Your task to perform on an android device: Clear the cart on bestbuy. Search for logitech g910 on bestbuy, select the first entry, and add it to the cart. Image 0: 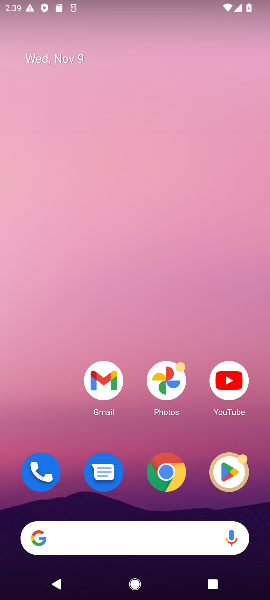
Step 0: click (109, 534)
Your task to perform on an android device: Clear the cart on bestbuy. Search for logitech g910 on bestbuy, select the first entry, and add it to the cart. Image 1: 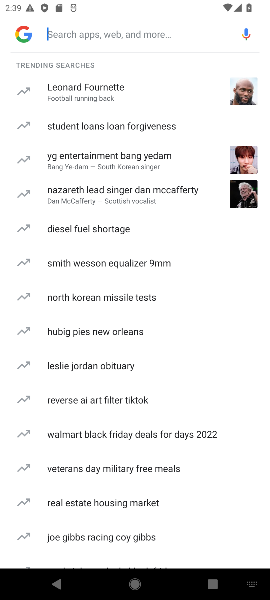
Step 1: type "bestbuy"
Your task to perform on an android device: Clear the cart on bestbuy. Search for logitech g910 on bestbuy, select the first entry, and add it to the cart. Image 2: 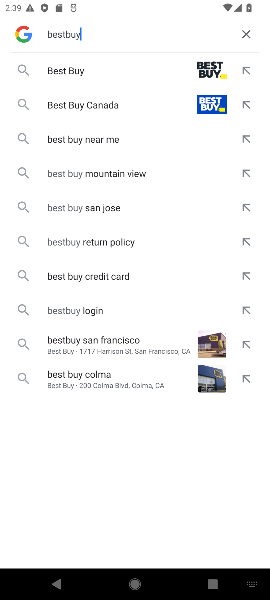
Step 2: click (64, 68)
Your task to perform on an android device: Clear the cart on bestbuy. Search for logitech g910 on bestbuy, select the first entry, and add it to the cart. Image 3: 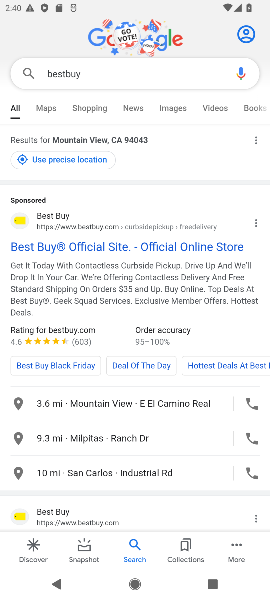
Step 3: click (47, 216)
Your task to perform on an android device: Clear the cart on bestbuy. Search for logitech g910 on bestbuy, select the first entry, and add it to the cart. Image 4: 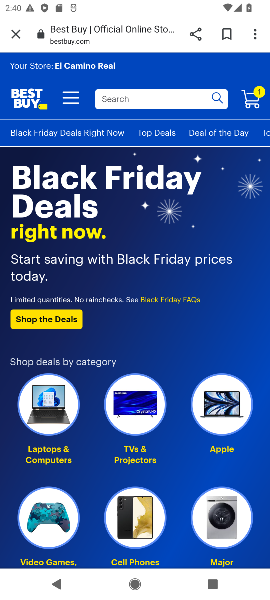
Step 4: click (256, 96)
Your task to perform on an android device: Clear the cart on bestbuy. Search for logitech g910 on bestbuy, select the first entry, and add it to the cart. Image 5: 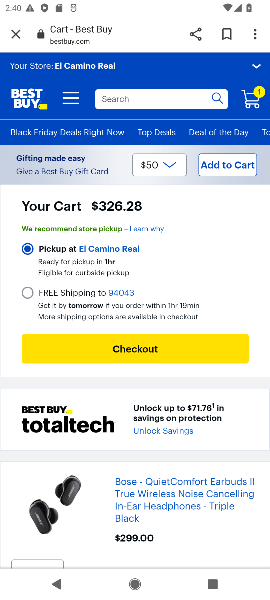
Step 5: drag from (213, 284) to (207, 140)
Your task to perform on an android device: Clear the cart on bestbuy. Search for logitech g910 on bestbuy, select the first entry, and add it to the cart. Image 6: 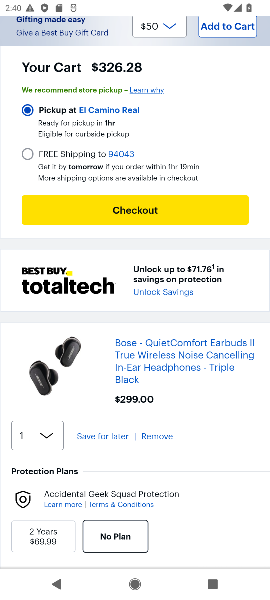
Step 6: drag from (197, 427) to (161, 268)
Your task to perform on an android device: Clear the cart on bestbuy. Search for logitech g910 on bestbuy, select the first entry, and add it to the cart. Image 7: 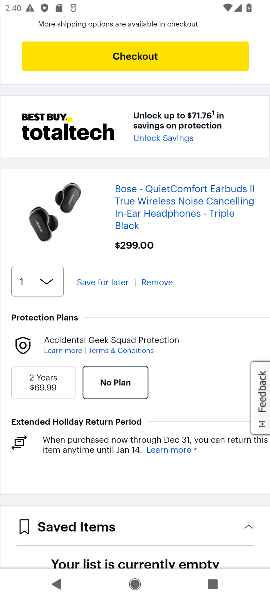
Step 7: click (50, 277)
Your task to perform on an android device: Clear the cart on bestbuy. Search for logitech g910 on bestbuy, select the first entry, and add it to the cart. Image 8: 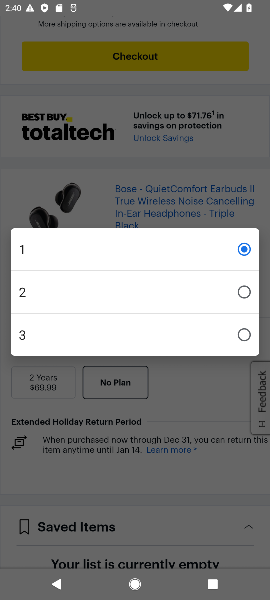
Step 8: click (90, 259)
Your task to perform on an android device: Clear the cart on bestbuy. Search for logitech g910 on bestbuy, select the first entry, and add it to the cart. Image 9: 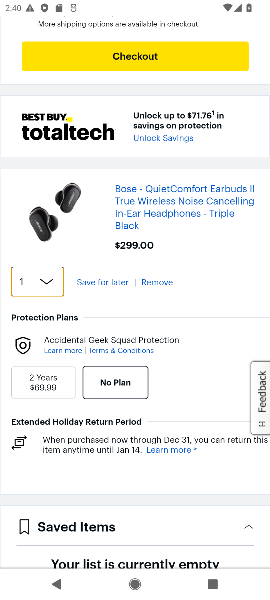
Step 9: click (155, 281)
Your task to perform on an android device: Clear the cart on bestbuy. Search for logitech g910 on bestbuy, select the first entry, and add it to the cart. Image 10: 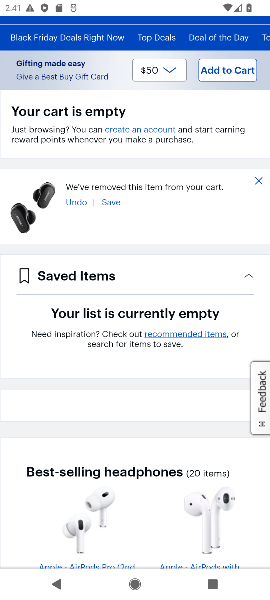
Step 10: press back button
Your task to perform on an android device: Clear the cart on bestbuy. Search for logitech g910 on bestbuy, select the first entry, and add it to the cart. Image 11: 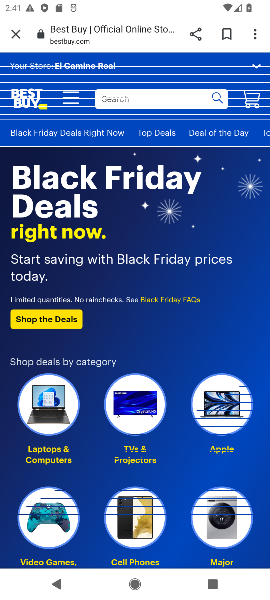
Step 11: click (124, 98)
Your task to perform on an android device: Clear the cart on bestbuy. Search for logitech g910 on bestbuy, select the first entry, and add it to the cart. Image 12: 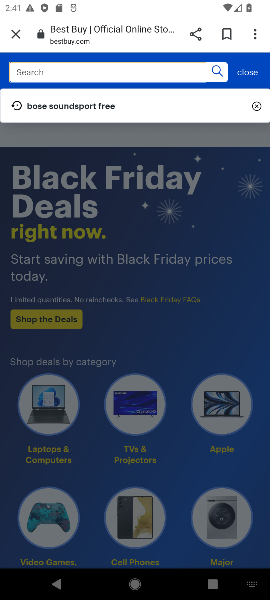
Step 12: type "logitech g910"
Your task to perform on an android device: Clear the cart on bestbuy. Search for logitech g910 on bestbuy, select the first entry, and add it to the cart. Image 13: 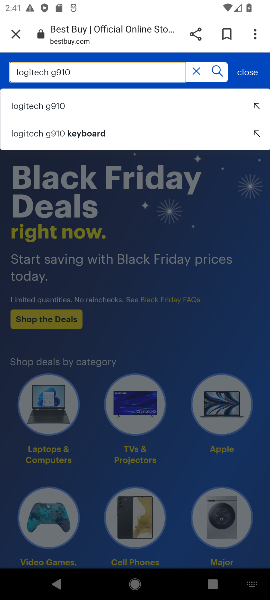
Step 13: click (47, 106)
Your task to perform on an android device: Clear the cart on bestbuy. Search for logitech g910 on bestbuy, select the first entry, and add it to the cart. Image 14: 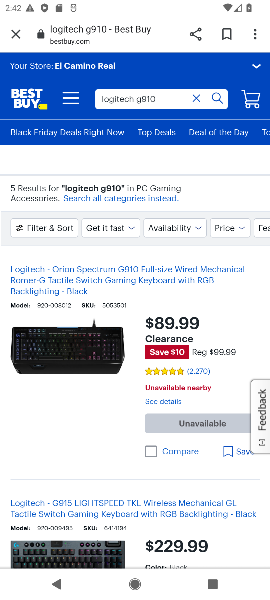
Step 14: click (157, 322)
Your task to perform on an android device: Clear the cart on bestbuy. Search for logitech g910 on bestbuy, select the first entry, and add it to the cart. Image 15: 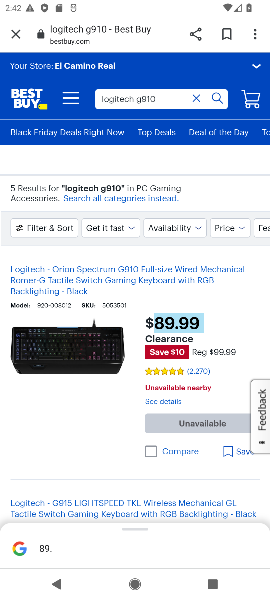
Step 15: task complete